Your task to perform on an android device: open device folders in google photos Image 0: 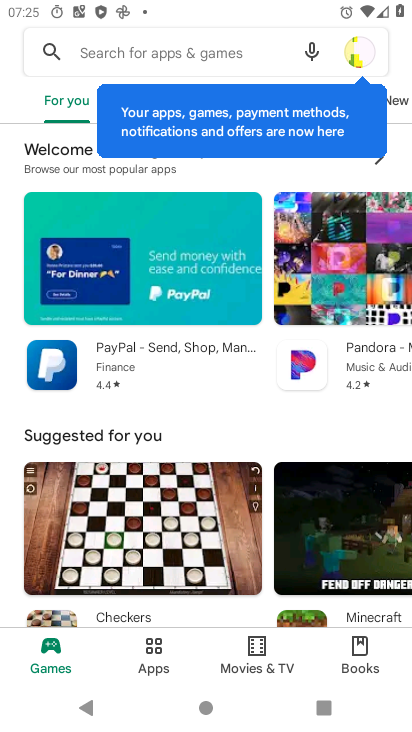
Step 0: press home button
Your task to perform on an android device: open device folders in google photos Image 1: 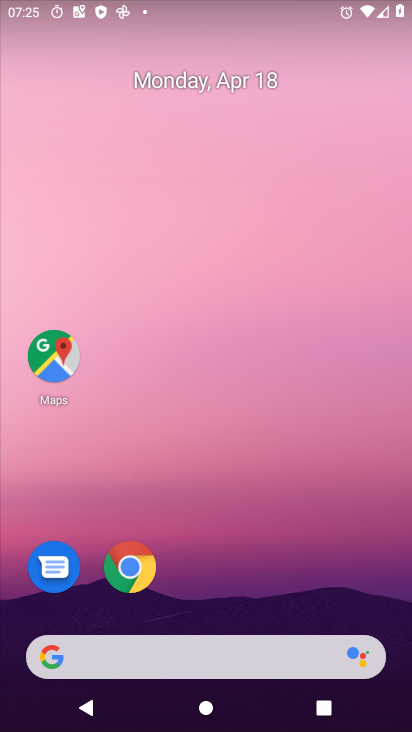
Step 1: drag from (362, 556) to (224, 16)
Your task to perform on an android device: open device folders in google photos Image 2: 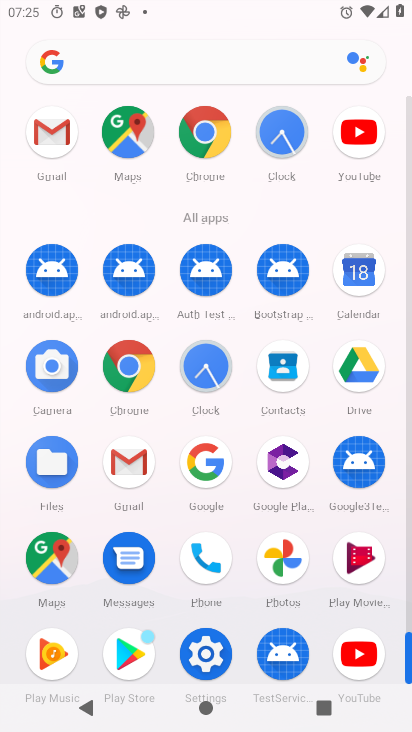
Step 2: click (287, 560)
Your task to perform on an android device: open device folders in google photos Image 3: 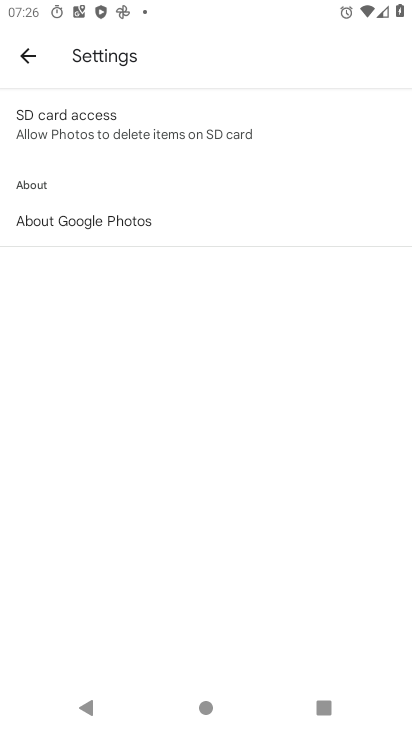
Step 3: click (36, 46)
Your task to perform on an android device: open device folders in google photos Image 4: 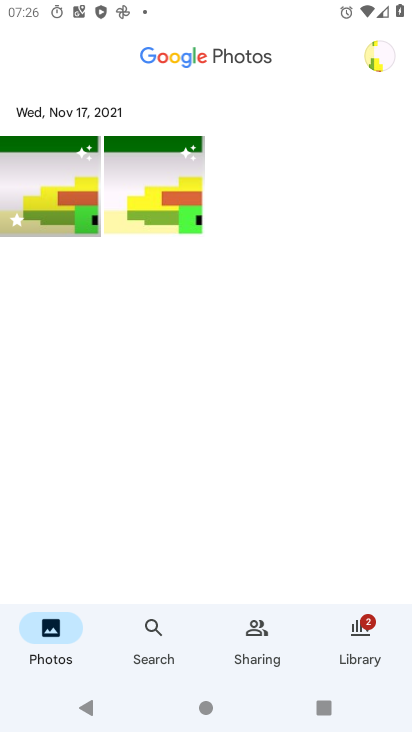
Step 4: click (366, 650)
Your task to perform on an android device: open device folders in google photos Image 5: 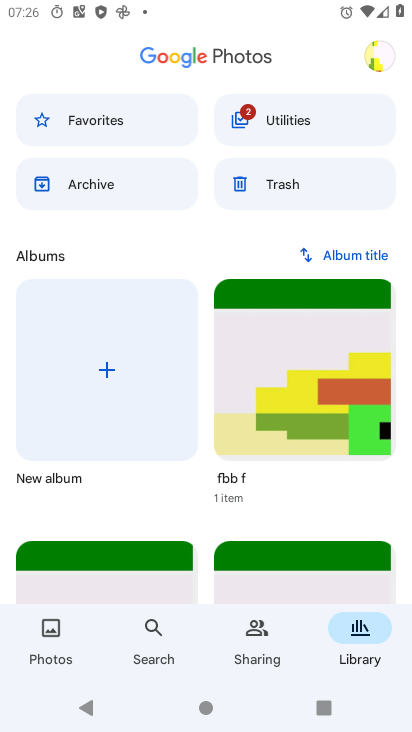
Step 5: task complete